Your task to perform on an android device: find photos in the google photos app Image 0: 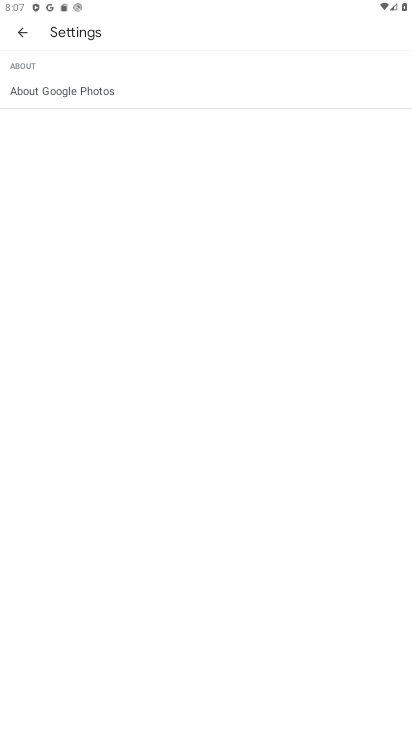
Step 0: press home button
Your task to perform on an android device: find photos in the google photos app Image 1: 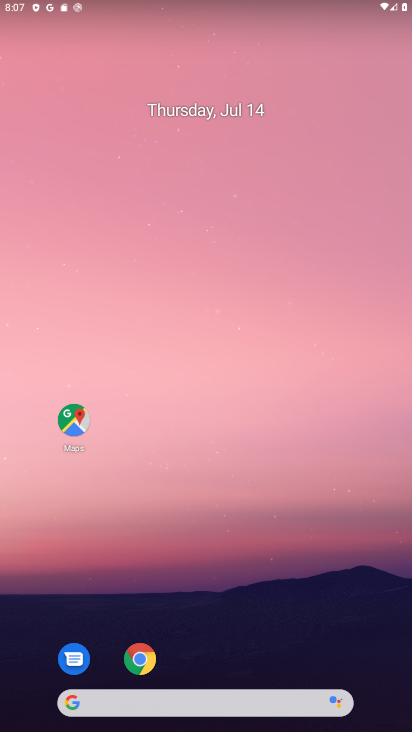
Step 1: drag from (213, 530) to (135, 131)
Your task to perform on an android device: find photos in the google photos app Image 2: 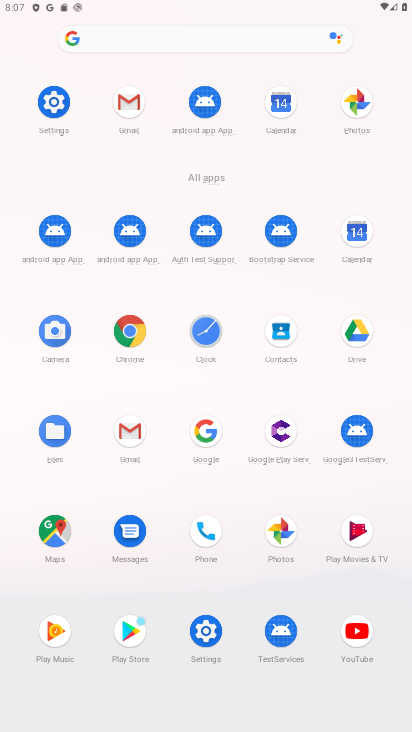
Step 2: click (286, 535)
Your task to perform on an android device: find photos in the google photos app Image 3: 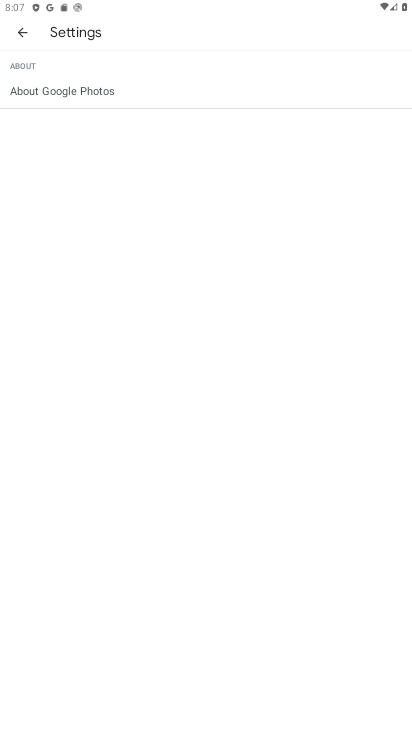
Step 3: click (23, 31)
Your task to perform on an android device: find photos in the google photos app Image 4: 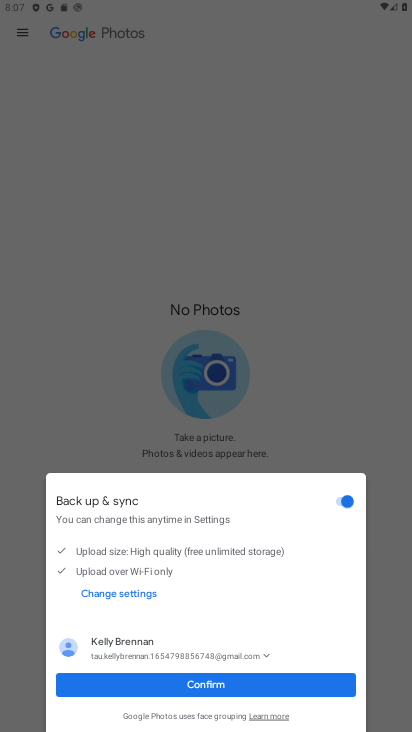
Step 4: click (201, 692)
Your task to perform on an android device: find photos in the google photos app Image 5: 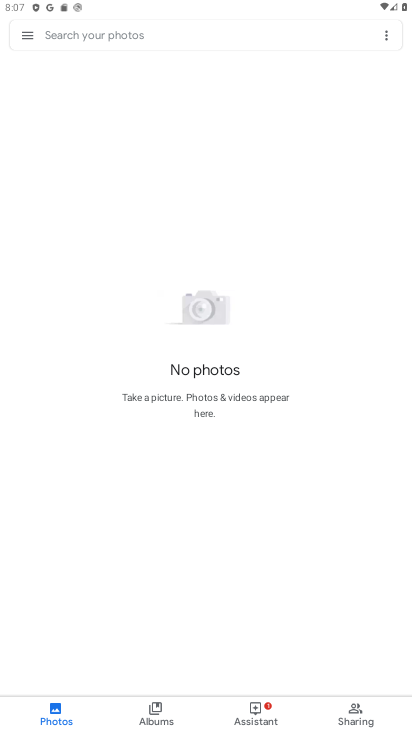
Step 5: task complete